Your task to perform on an android device: check google app version Image 0: 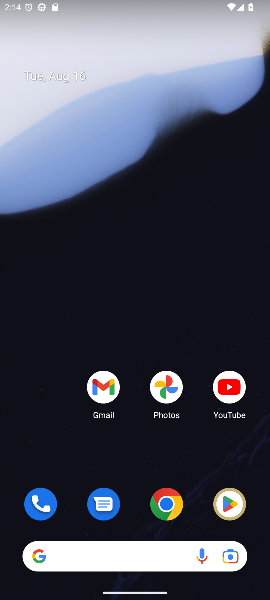
Step 0: drag from (128, 479) to (98, 62)
Your task to perform on an android device: check google app version Image 1: 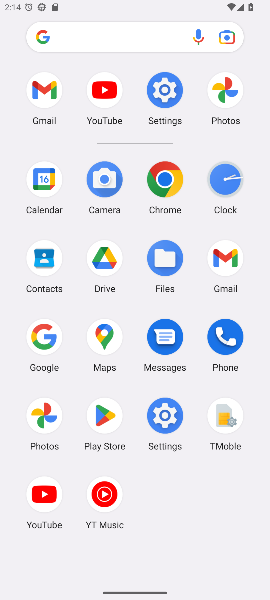
Step 1: click (46, 336)
Your task to perform on an android device: check google app version Image 2: 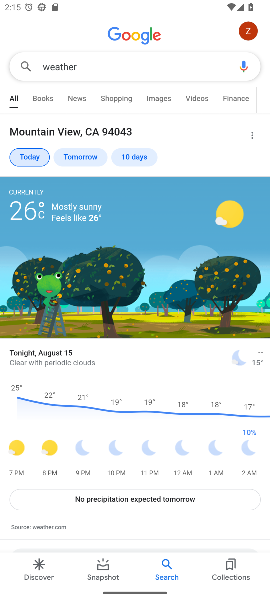
Step 2: click (237, 29)
Your task to perform on an android device: check google app version Image 3: 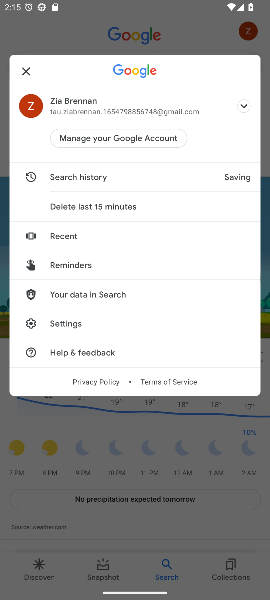
Step 3: click (64, 321)
Your task to perform on an android device: check google app version Image 4: 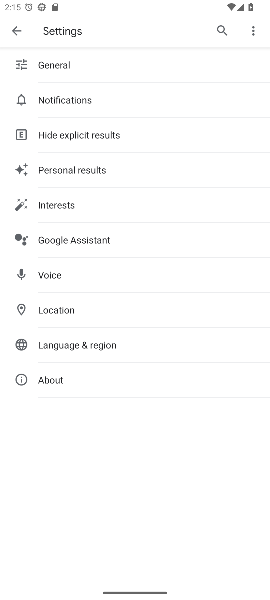
Step 4: click (47, 380)
Your task to perform on an android device: check google app version Image 5: 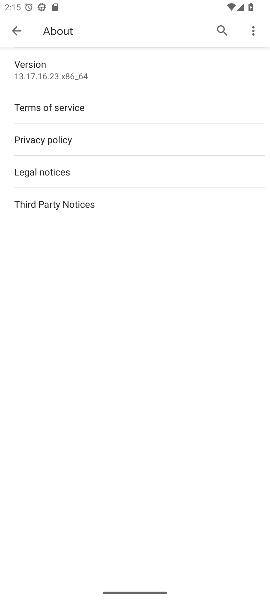
Step 5: task complete